Your task to perform on an android device: install app "Google Play services" Image 0: 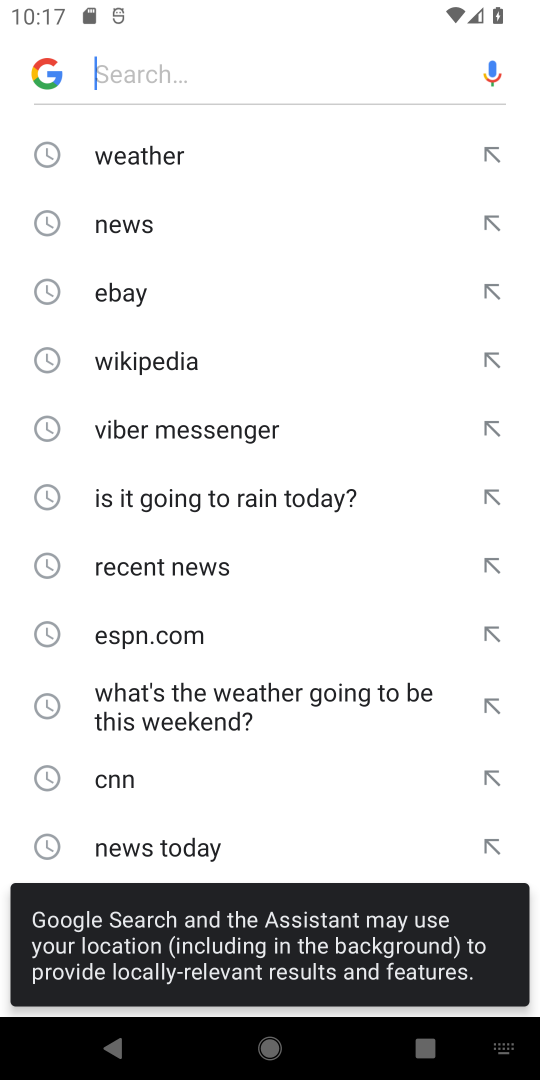
Step 0: press home button
Your task to perform on an android device: install app "Google Play services" Image 1: 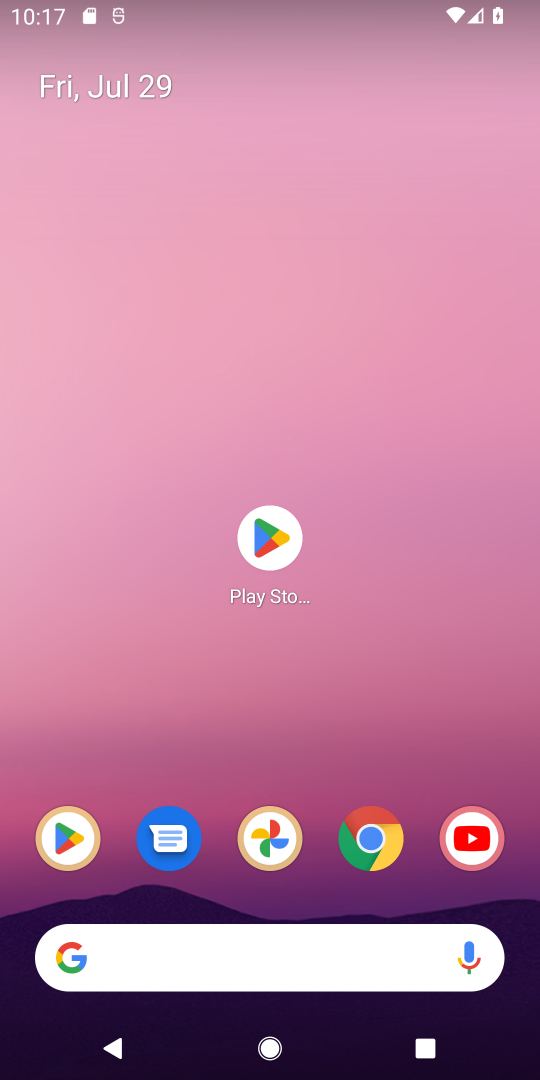
Step 1: click (270, 538)
Your task to perform on an android device: install app "Google Play services" Image 2: 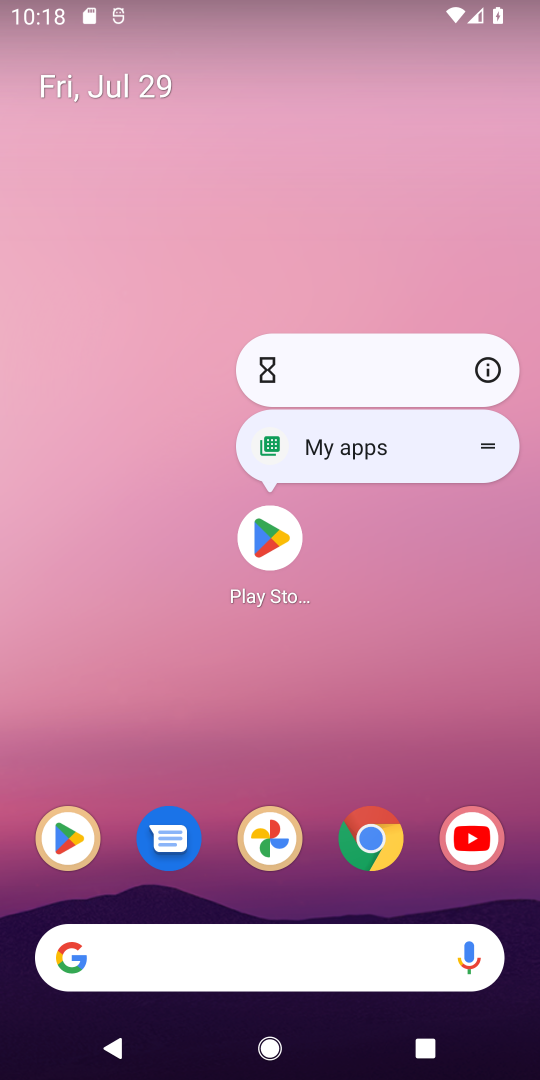
Step 2: click (272, 542)
Your task to perform on an android device: install app "Google Play services" Image 3: 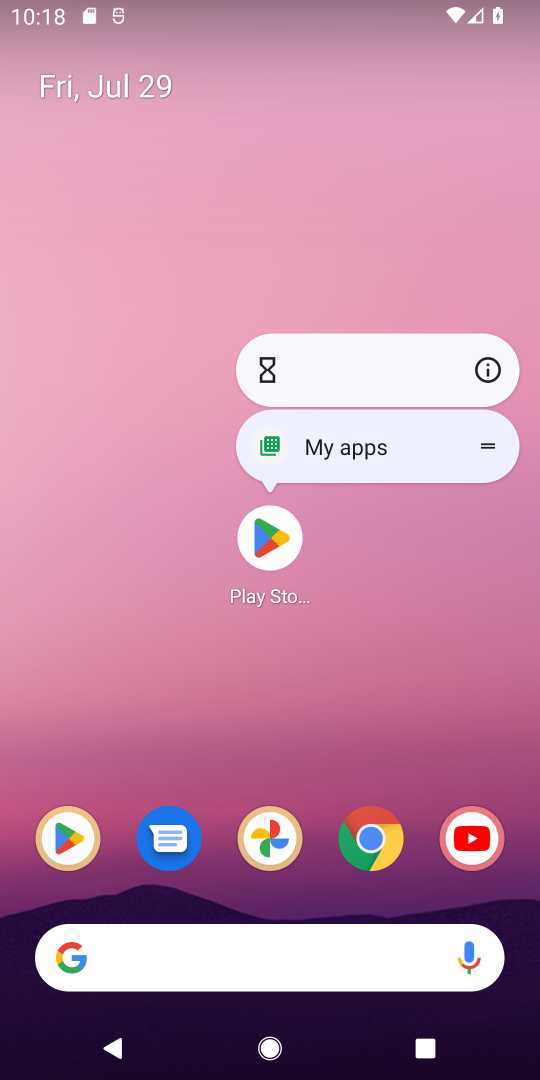
Step 3: click (272, 548)
Your task to perform on an android device: install app "Google Play services" Image 4: 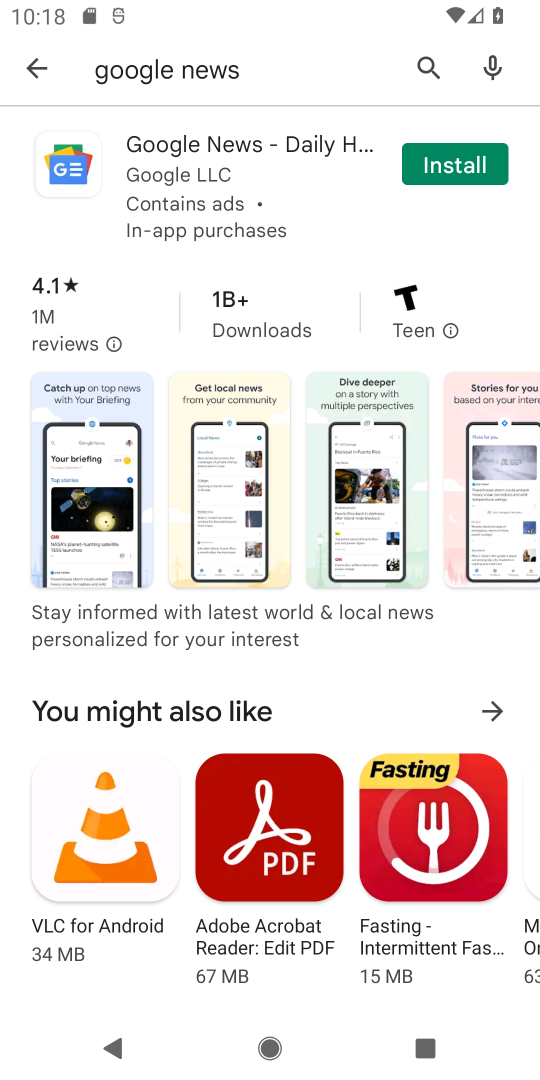
Step 4: click (426, 64)
Your task to perform on an android device: install app "Google Play services" Image 5: 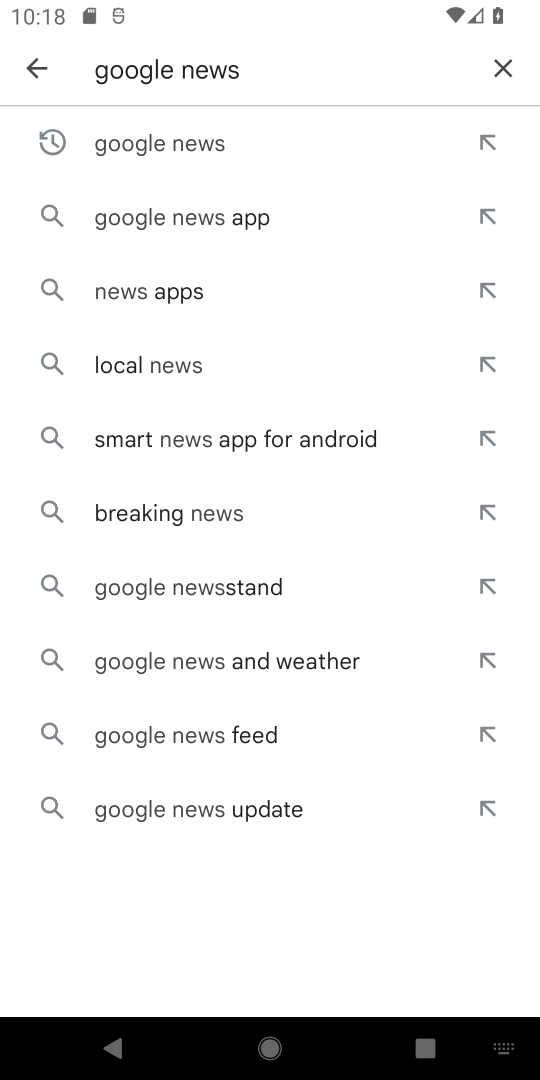
Step 5: click (497, 65)
Your task to perform on an android device: install app "Google Play services" Image 6: 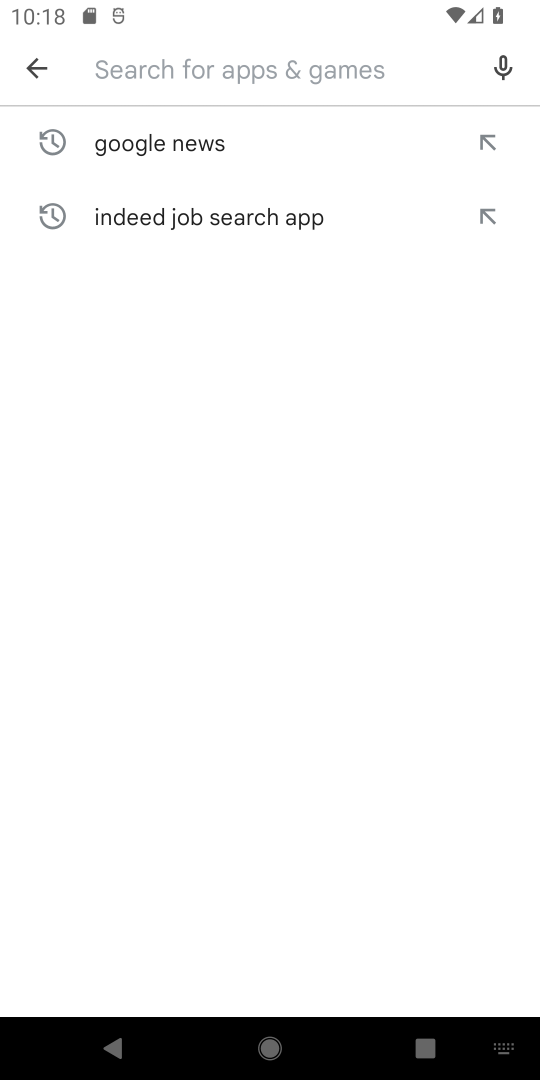
Step 6: type "Google Play services"
Your task to perform on an android device: install app "Google Play services" Image 7: 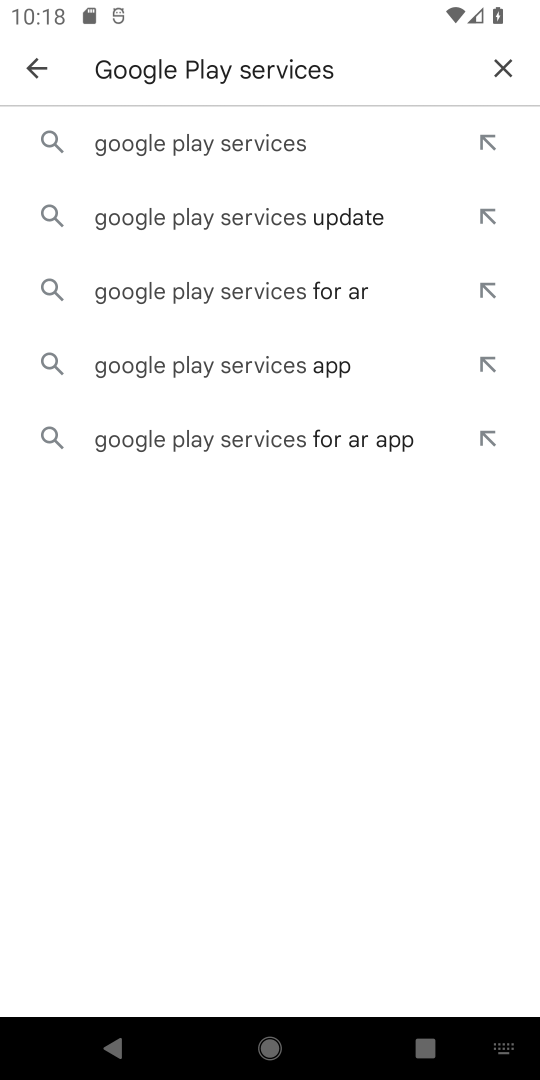
Step 7: click (182, 139)
Your task to perform on an android device: install app "Google Play services" Image 8: 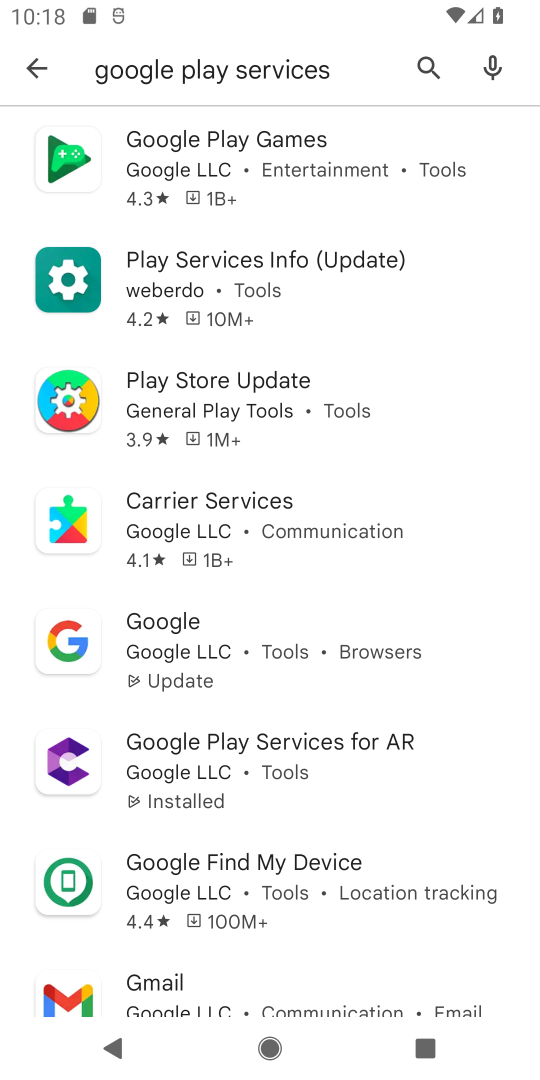
Step 8: click (205, 160)
Your task to perform on an android device: install app "Google Play services" Image 9: 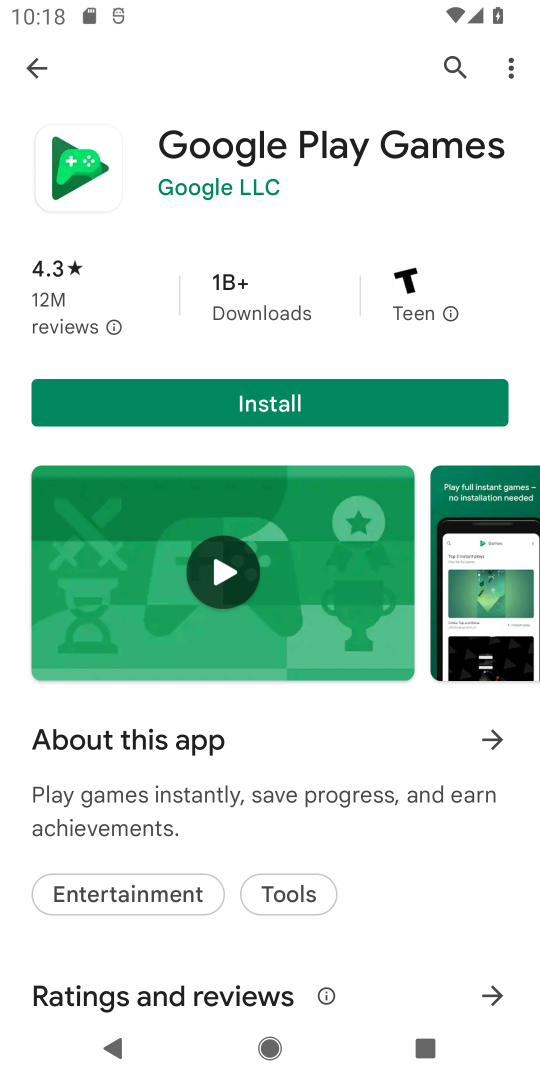
Step 9: task complete